Your task to perform on an android device: turn on the 24-hour format for clock Image 0: 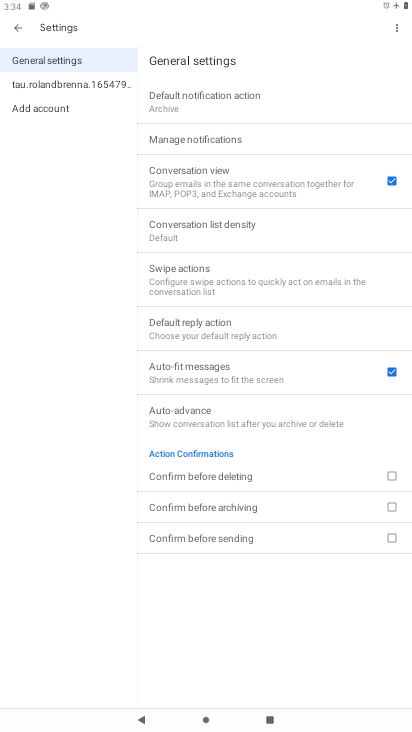
Step 0: press home button
Your task to perform on an android device: turn on the 24-hour format for clock Image 1: 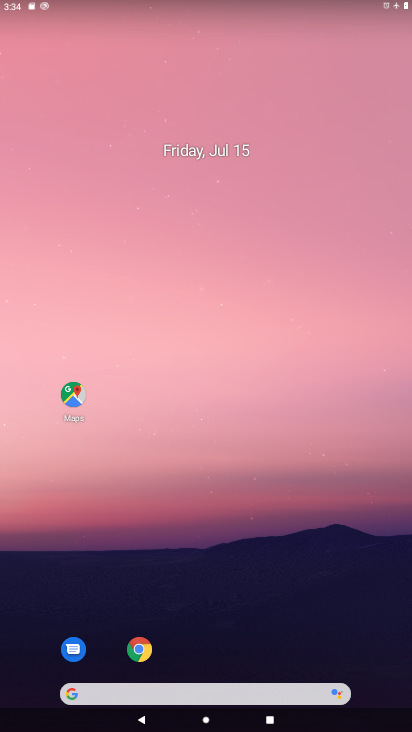
Step 1: drag from (369, 662) to (318, 143)
Your task to perform on an android device: turn on the 24-hour format for clock Image 2: 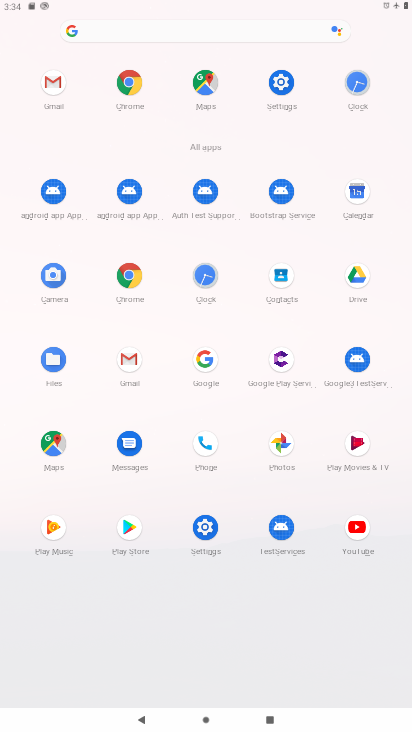
Step 2: click (204, 274)
Your task to perform on an android device: turn on the 24-hour format for clock Image 3: 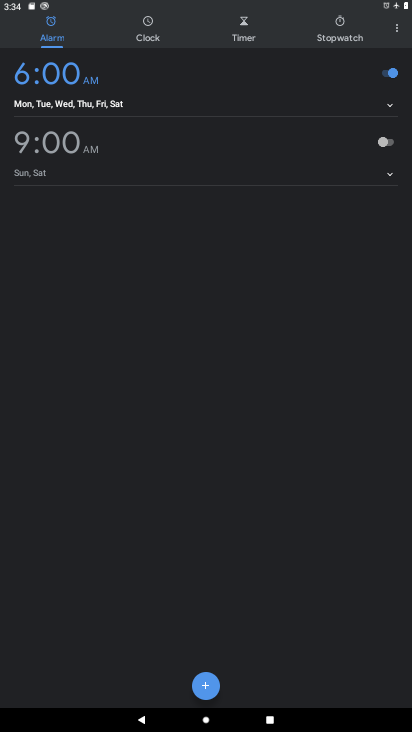
Step 3: click (396, 34)
Your task to perform on an android device: turn on the 24-hour format for clock Image 4: 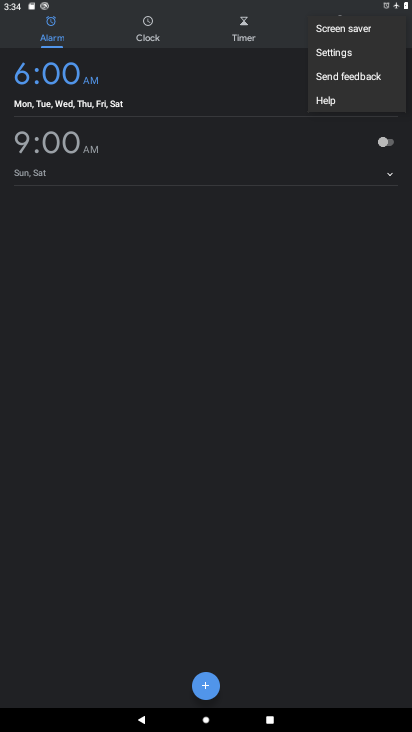
Step 4: click (333, 54)
Your task to perform on an android device: turn on the 24-hour format for clock Image 5: 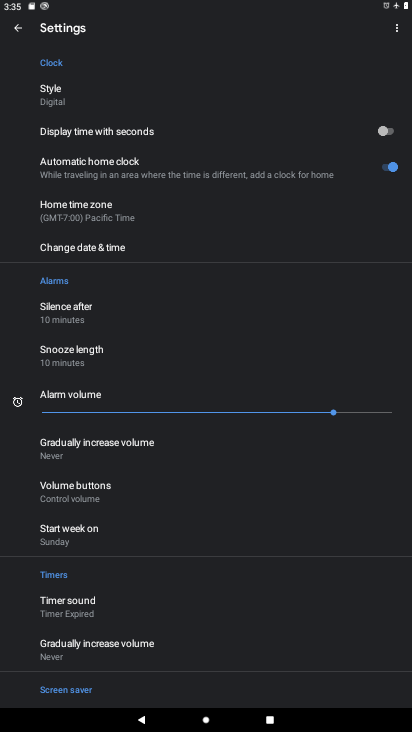
Step 5: click (86, 244)
Your task to perform on an android device: turn on the 24-hour format for clock Image 6: 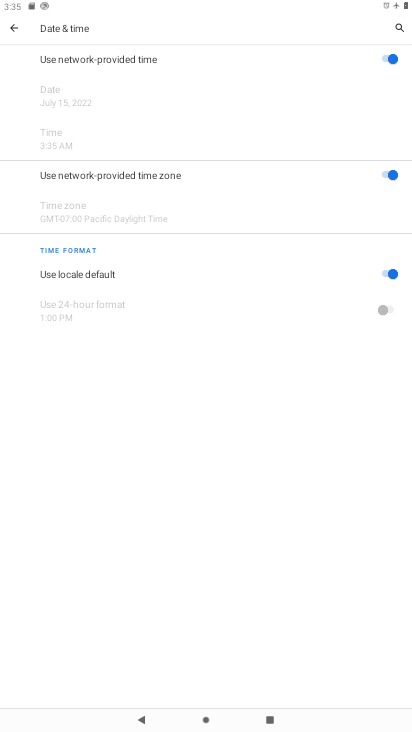
Step 6: click (382, 272)
Your task to perform on an android device: turn on the 24-hour format for clock Image 7: 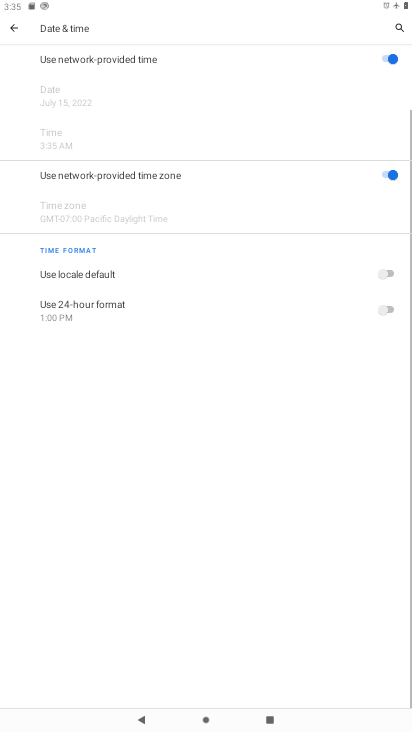
Step 7: click (388, 307)
Your task to perform on an android device: turn on the 24-hour format for clock Image 8: 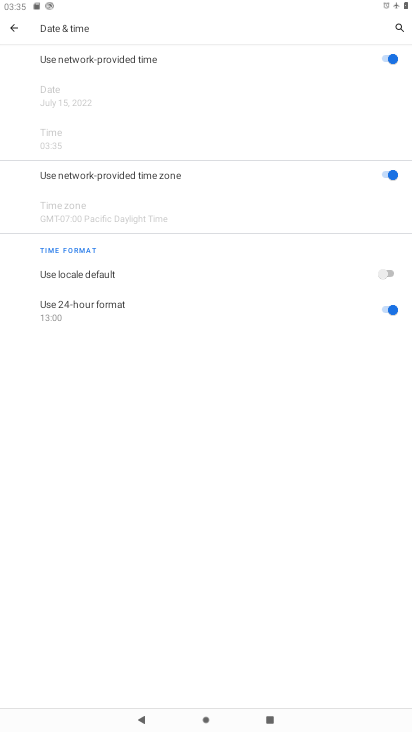
Step 8: task complete